Your task to perform on an android device: open chrome privacy settings Image 0: 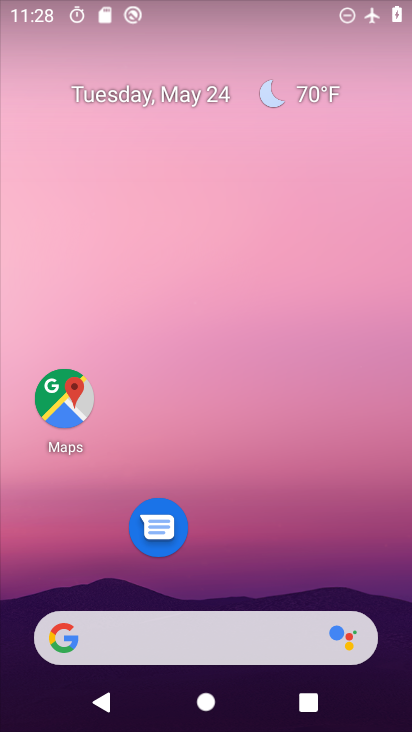
Step 0: drag from (237, 538) to (260, 82)
Your task to perform on an android device: open chrome privacy settings Image 1: 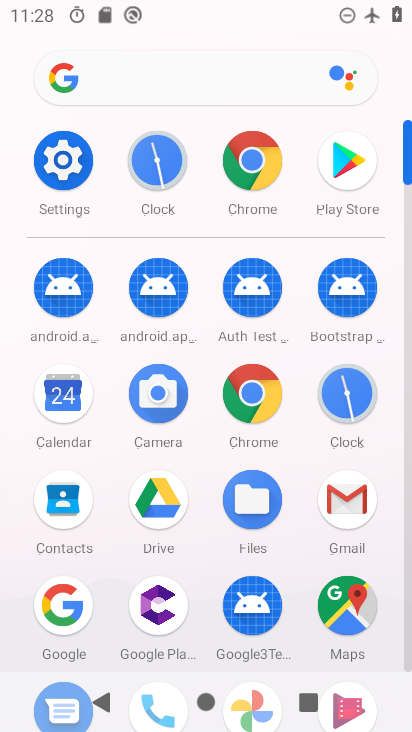
Step 1: click (259, 165)
Your task to perform on an android device: open chrome privacy settings Image 2: 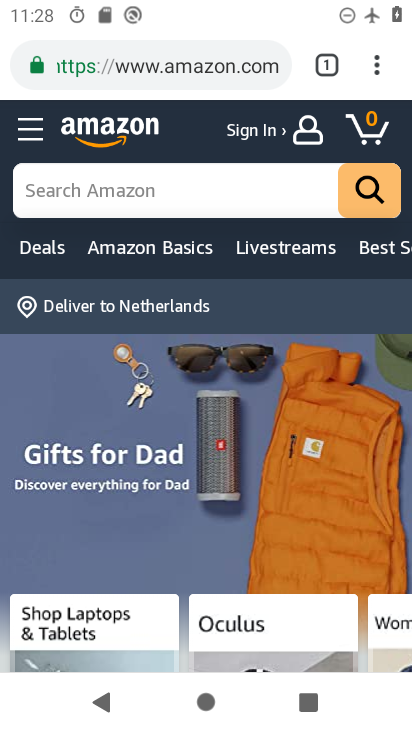
Step 2: click (371, 68)
Your task to perform on an android device: open chrome privacy settings Image 3: 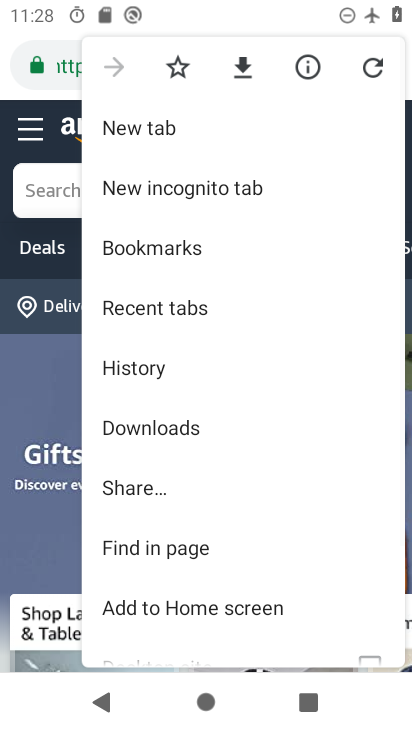
Step 3: drag from (271, 530) to (263, 102)
Your task to perform on an android device: open chrome privacy settings Image 4: 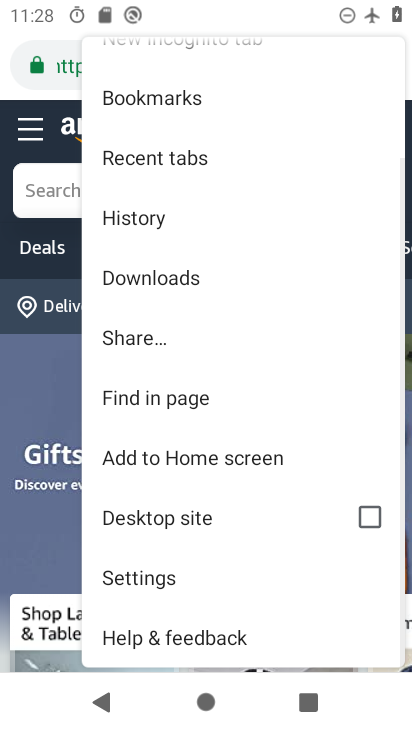
Step 4: click (174, 574)
Your task to perform on an android device: open chrome privacy settings Image 5: 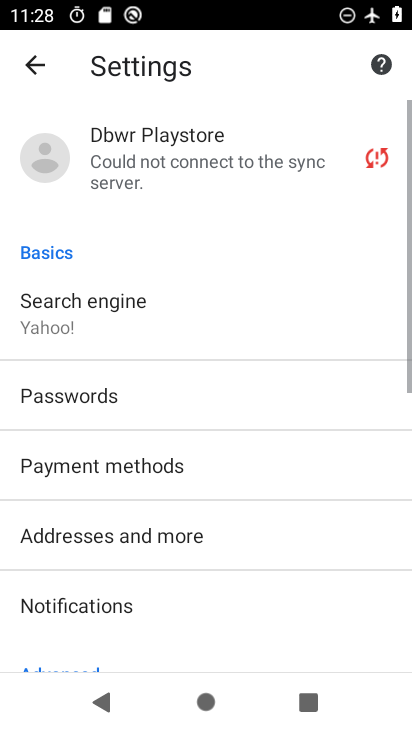
Step 5: drag from (217, 564) to (204, 271)
Your task to perform on an android device: open chrome privacy settings Image 6: 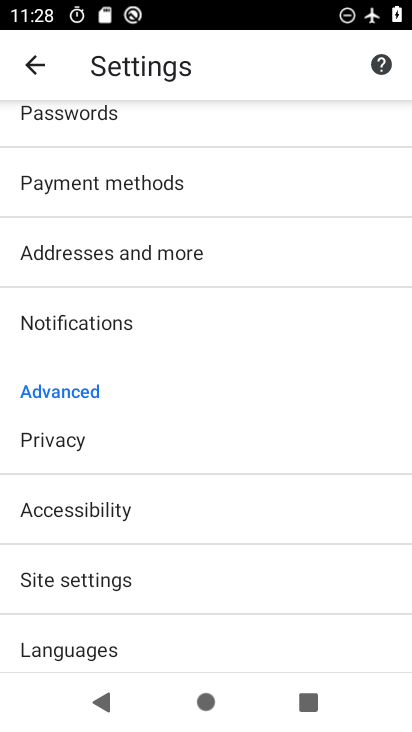
Step 6: click (129, 456)
Your task to perform on an android device: open chrome privacy settings Image 7: 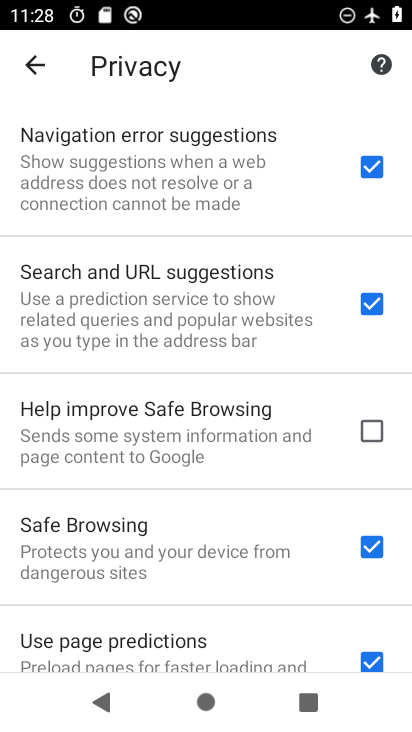
Step 7: task complete